Your task to perform on an android device: Toggle the flashlight Image 0: 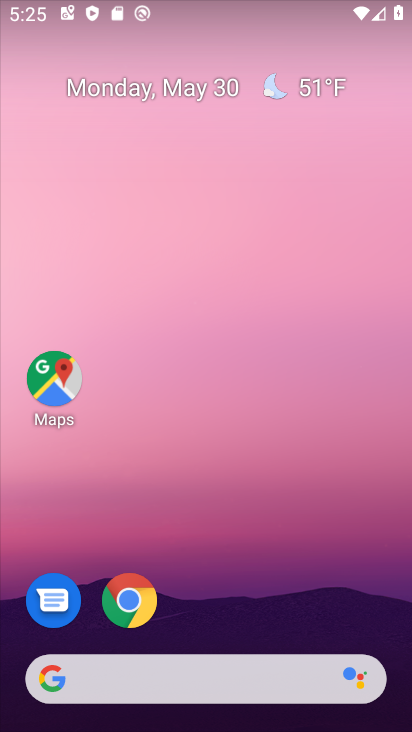
Step 0: drag from (284, 538) to (245, 96)
Your task to perform on an android device: Toggle the flashlight Image 1: 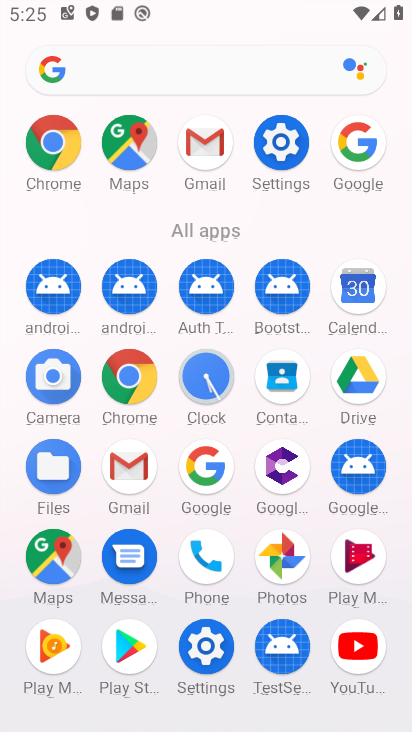
Step 1: task complete